Your task to perform on an android device: Open the web browser Image 0: 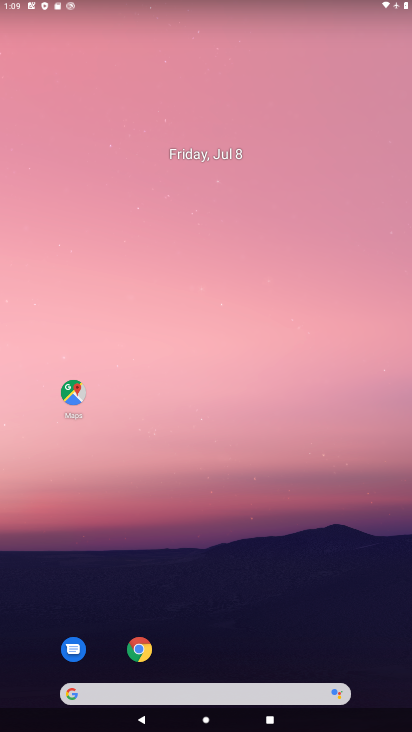
Step 0: drag from (35, 355) to (368, 420)
Your task to perform on an android device: Open the web browser Image 1: 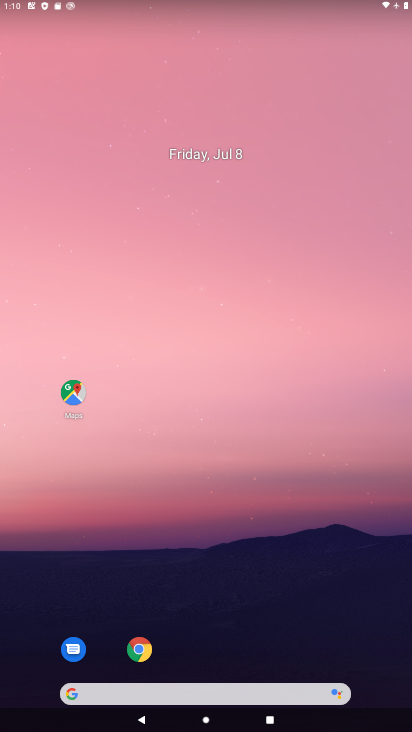
Step 1: click (103, 695)
Your task to perform on an android device: Open the web browser Image 2: 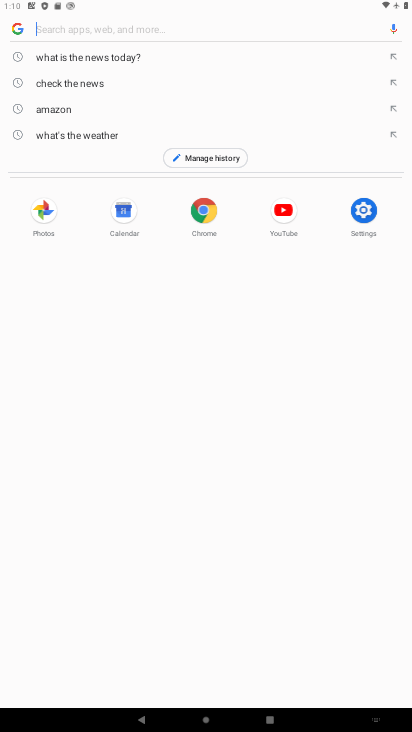
Step 2: task complete